Your task to perform on an android device: Go to accessibility settings Image 0: 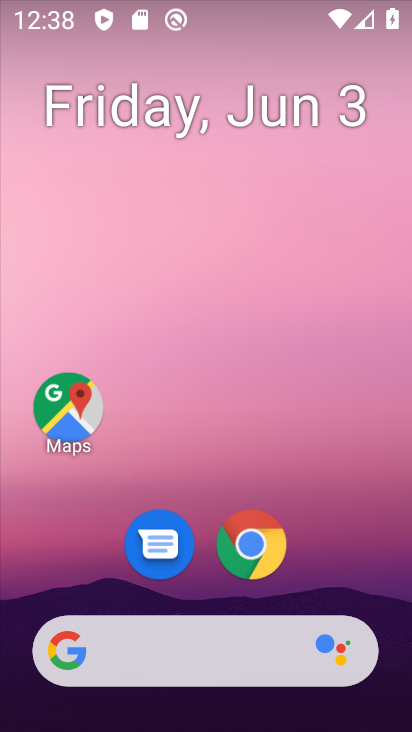
Step 0: drag from (339, 570) to (307, 6)
Your task to perform on an android device: Go to accessibility settings Image 1: 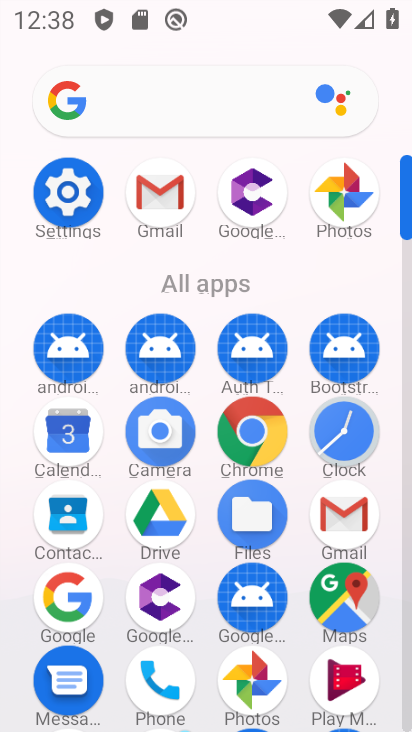
Step 1: click (60, 195)
Your task to perform on an android device: Go to accessibility settings Image 2: 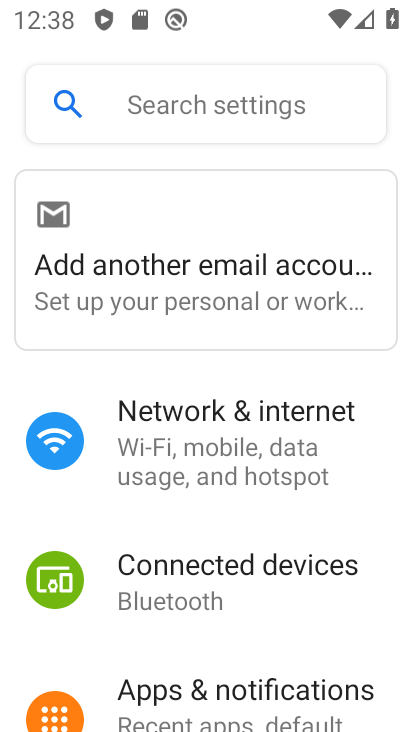
Step 2: drag from (233, 586) to (240, 118)
Your task to perform on an android device: Go to accessibility settings Image 3: 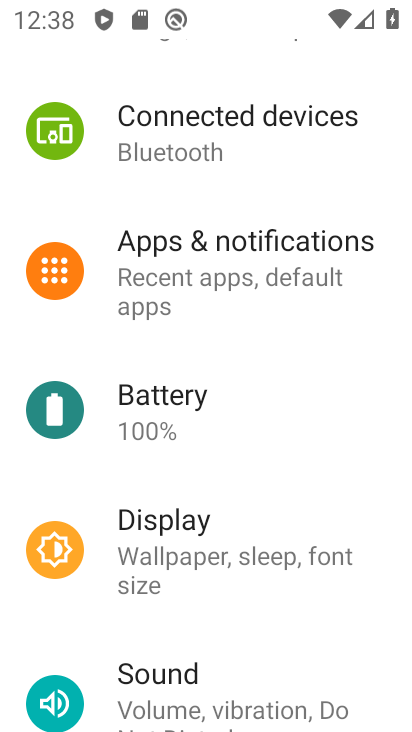
Step 3: drag from (292, 571) to (272, 165)
Your task to perform on an android device: Go to accessibility settings Image 4: 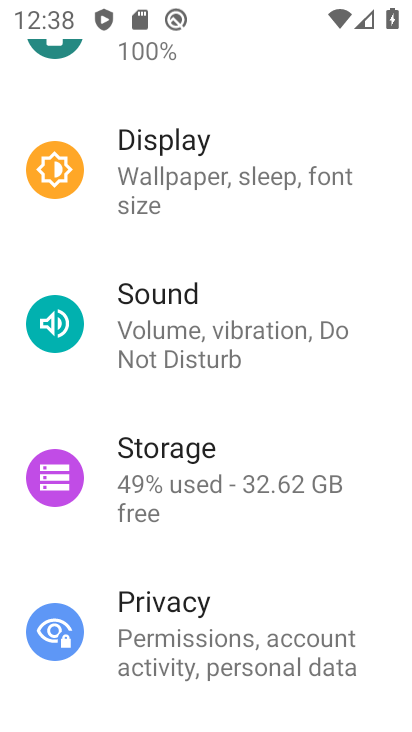
Step 4: drag from (306, 638) to (271, 190)
Your task to perform on an android device: Go to accessibility settings Image 5: 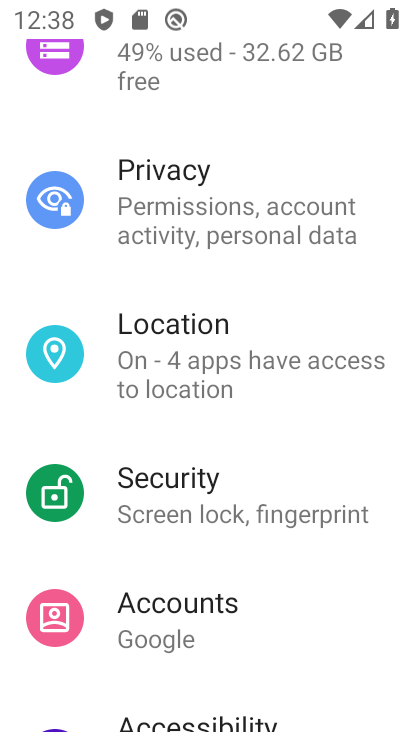
Step 5: drag from (209, 344) to (209, 157)
Your task to perform on an android device: Go to accessibility settings Image 6: 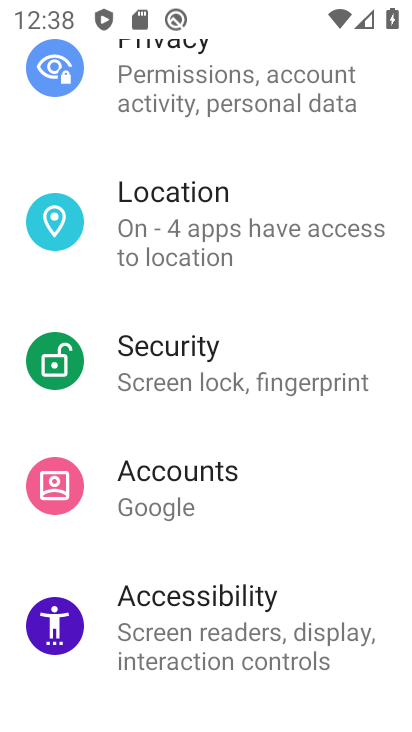
Step 6: click (186, 637)
Your task to perform on an android device: Go to accessibility settings Image 7: 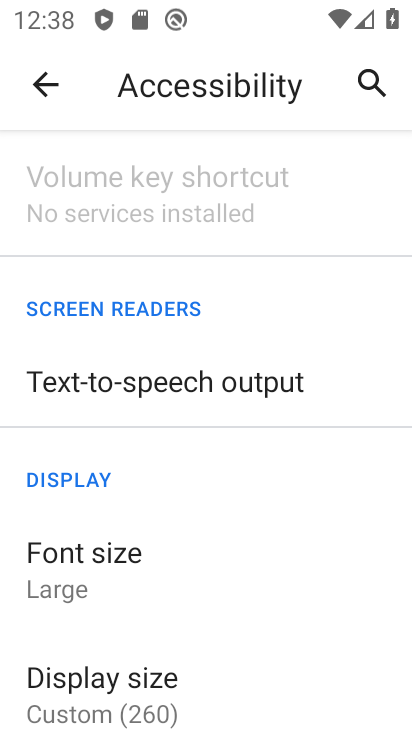
Step 7: task complete